Your task to perform on an android device: change the clock display to digital Image 0: 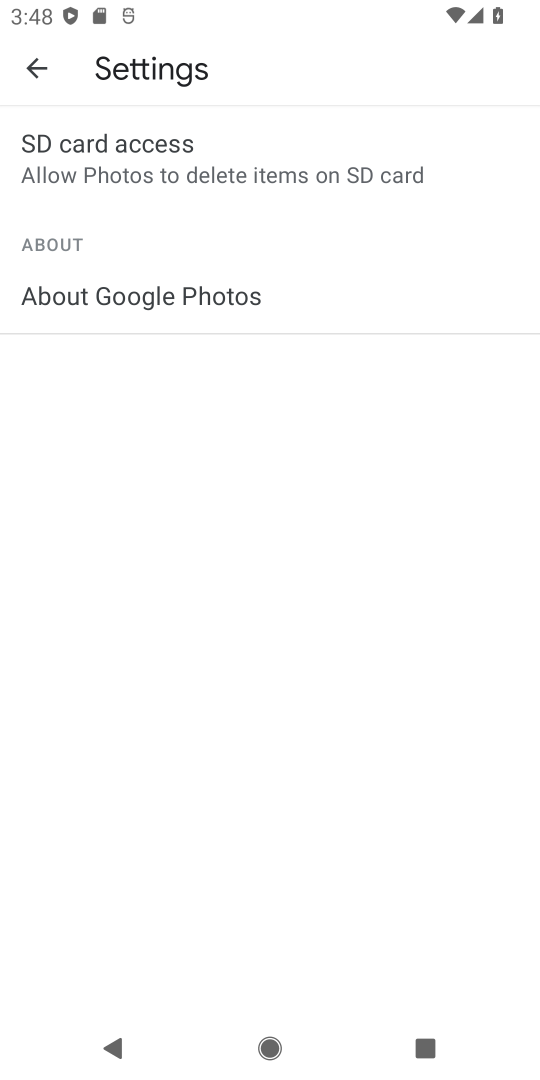
Step 0: press home button
Your task to perform on an android device: change the clock display to digital Image 1: 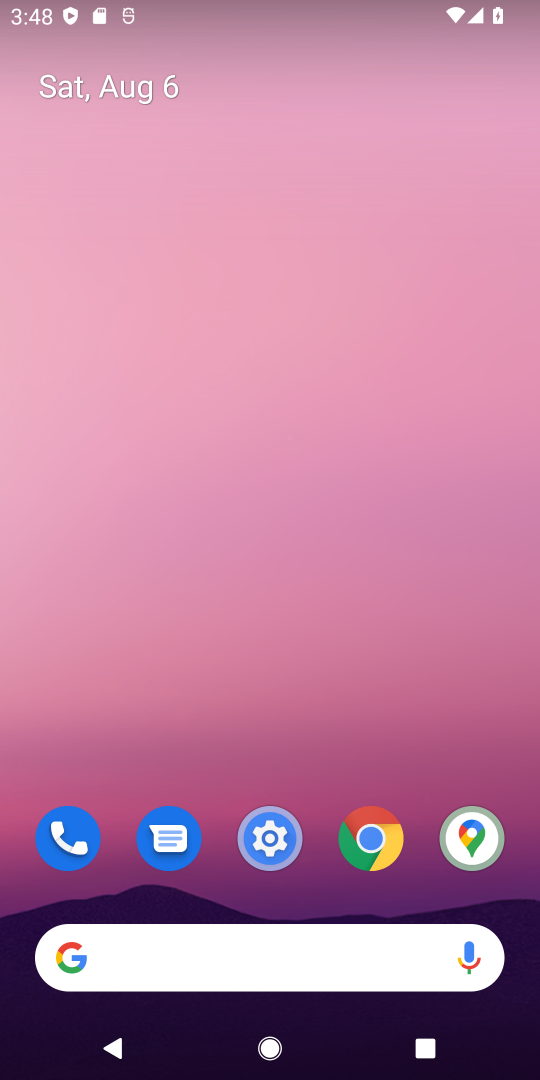
Step 1: drag from (322, 953) to (356, 195)
Your task to perform on an android device: change the clock display to digital Image 2: 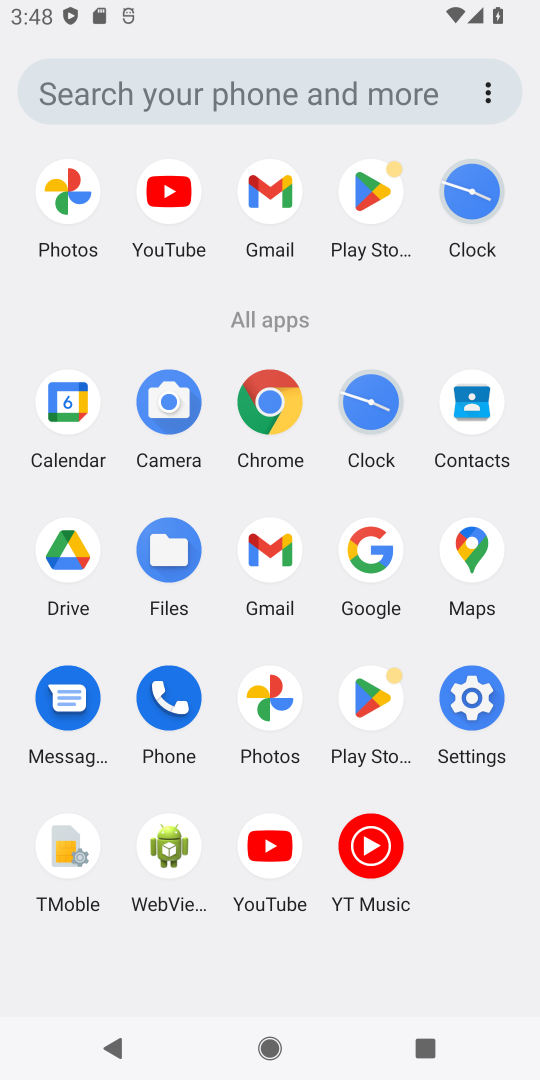
Step 2: click (370, 406)
Your task to perform on an android device: change the clock display to digital Image 3: 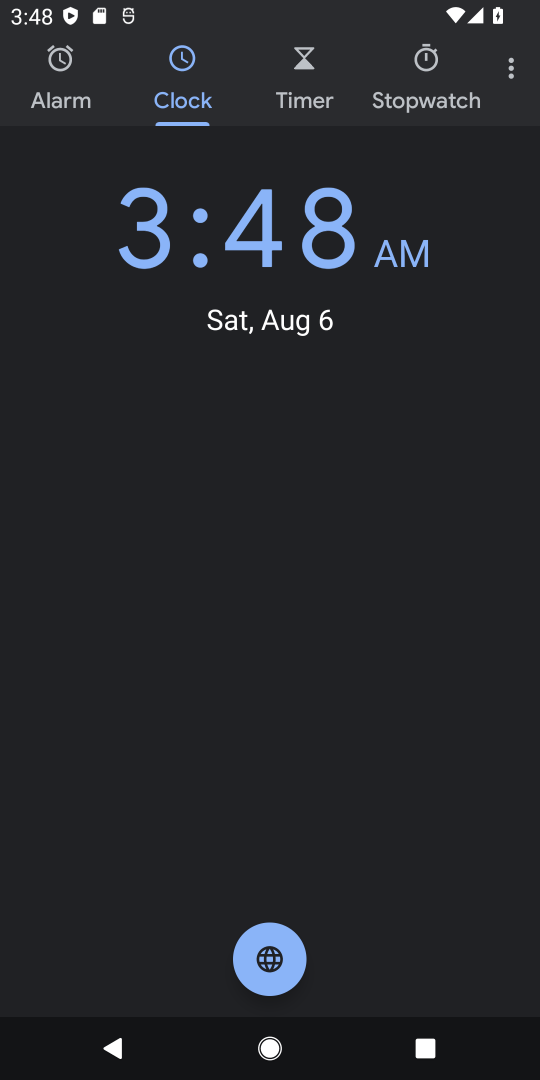
Step 3: click (506, 75)
Your task to perform on an android device: change the clock display to digital Image 4: 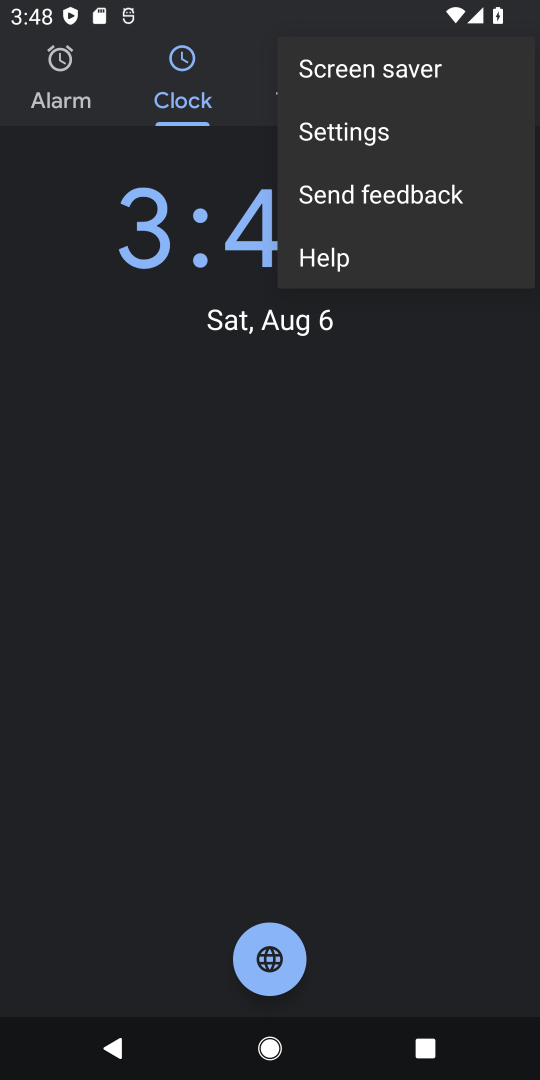
Step 4: click (407, 128)
Your task to perform on an android device: change the clock display to digital Image 5: 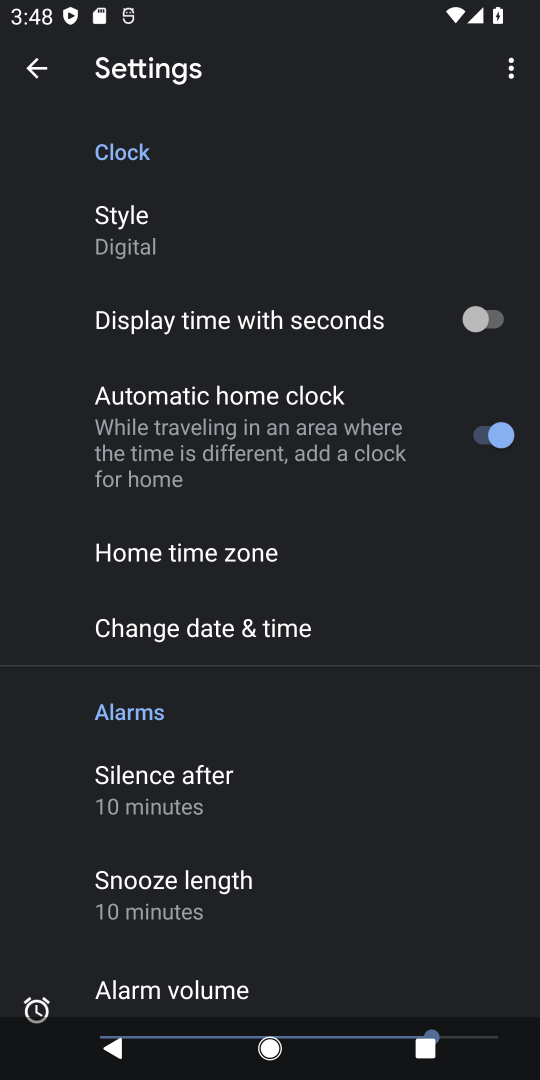
Step 5: task complete